Your task to perform on an android device: turn off airplane mode Image 0: 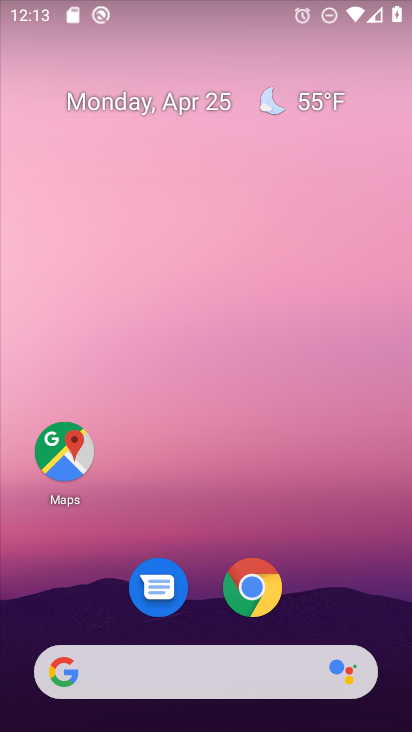
Step 0: drag from (287, 315) to (260, 30)
Your task to perform on an android device: turn off airplane mode Image 1: 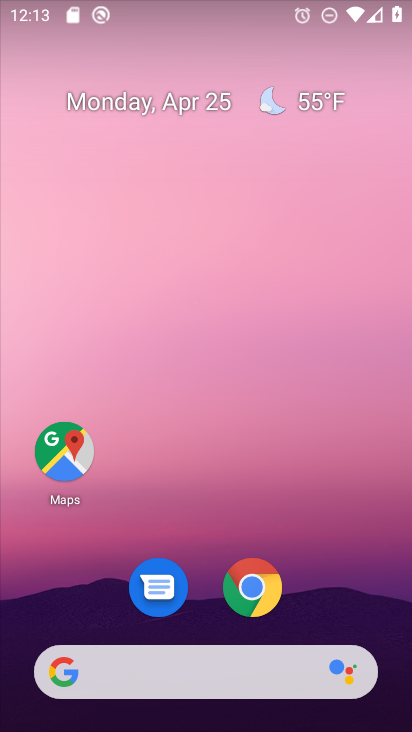
Step 1: drag from (340, 463) to (291, 53)
Your task to perform on an android device: turn off airplane mode Image 2: 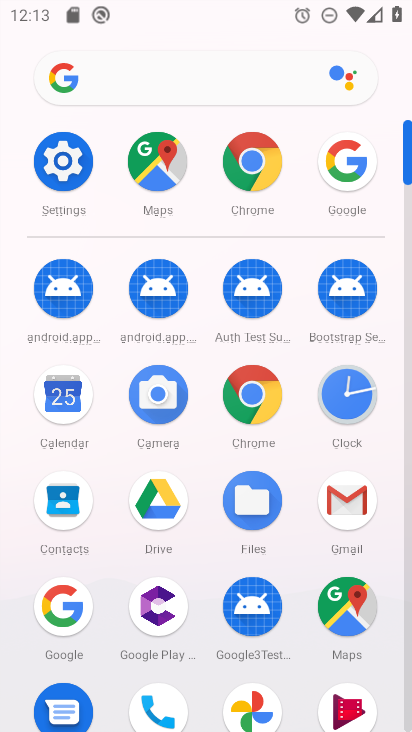
Step 2: click (71, 169)
Your task to perform on an android device: turn off airplane mode Image 3: 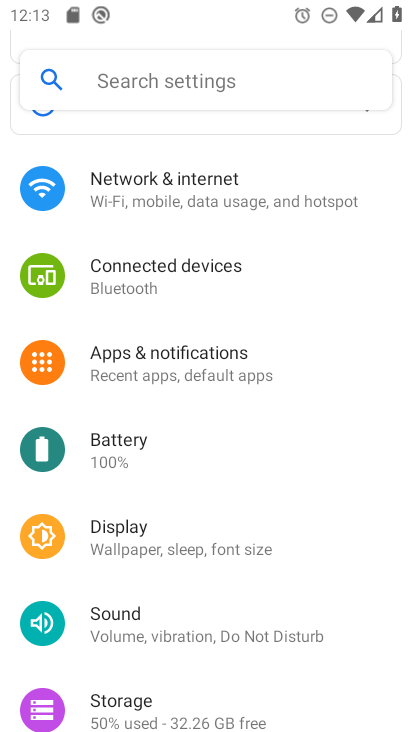
Step 3: click (136, 186)
Your task to perform on an android device: turn off airplane mode Image 4: 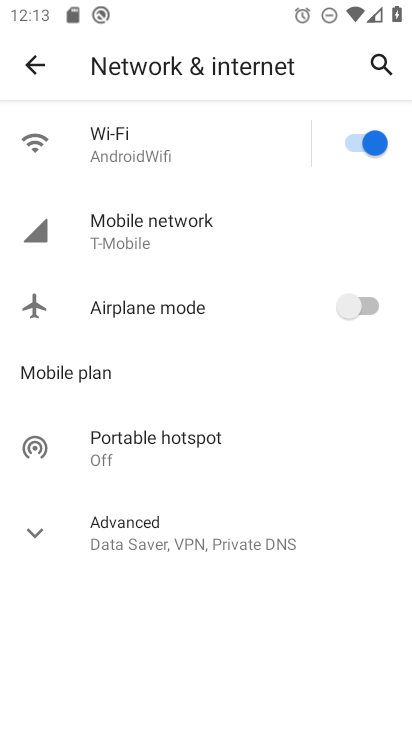
Step 4: task complete